Your task to perform on an android device: open a new tab in the chrome app Image 0: 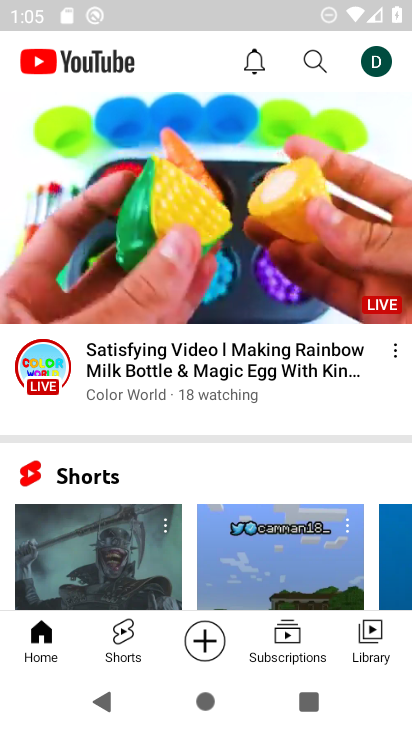
Step 0: press home button
Your task to perform on an android device: open a new tab in the chrome app Image 1: 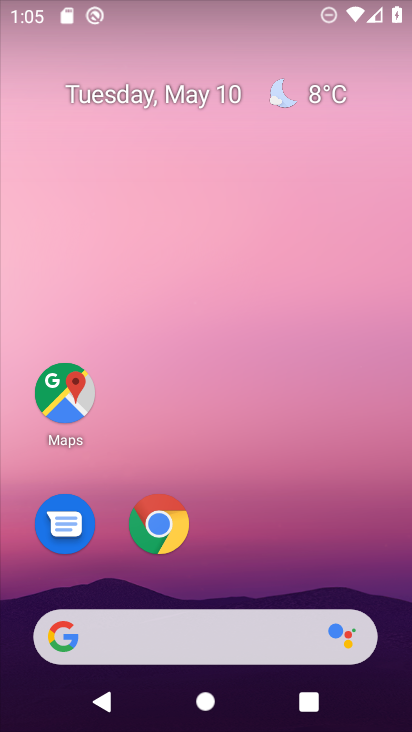
Step 1: click (163, 530)
Your task to perform on an android device: open a new tab in the chrome app Image 2: 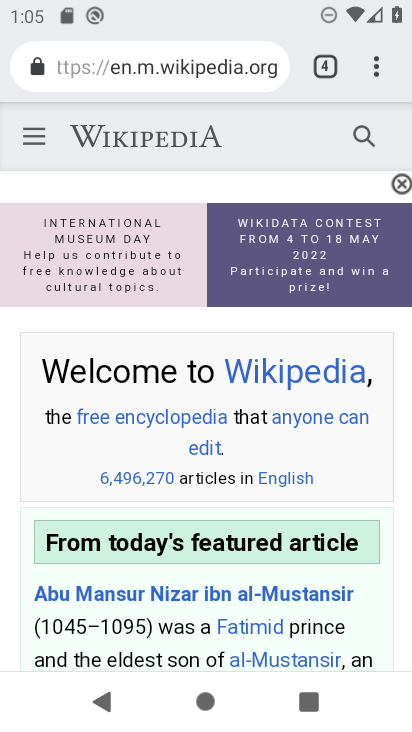
Step 2: click (372, 70)
Your task to perform on an android device: open a new tab in the chrome app Image 3: 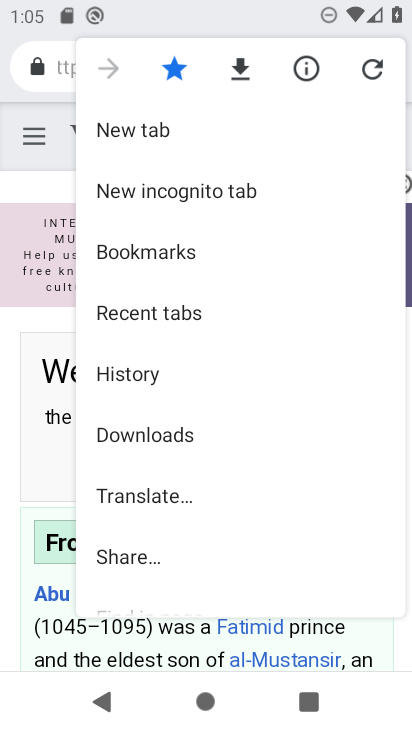
Step 3: click (293, 127)
Your task to perform on an android device: open a new tab in the chrome app Image 4: 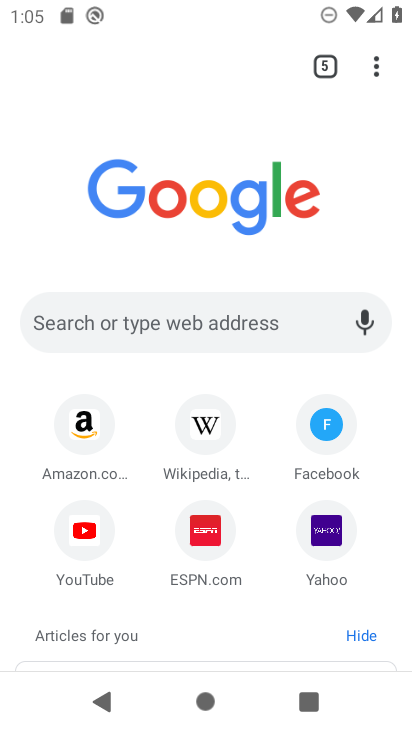
Step 4: task complete